Your task to perform on an android device: Open Reddit.com Image 0: 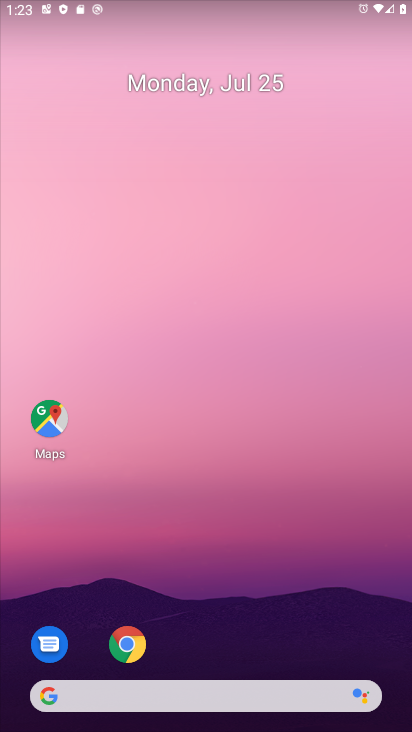
Step 0: drag from (369, 619) to (2, 228)
Your task to perform on an android device: Open Reddit.com Image 1: 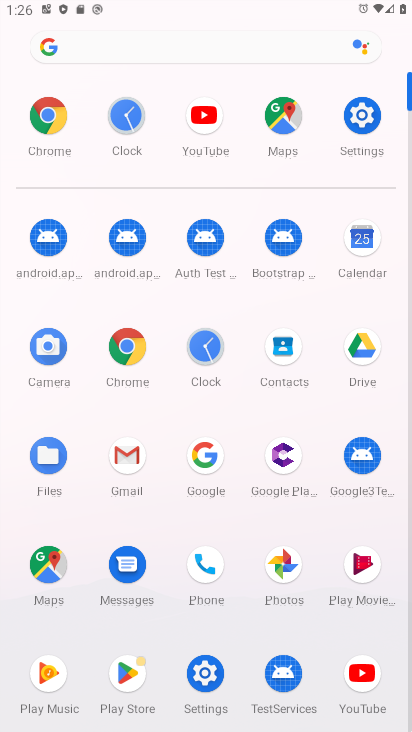
Step 1: click (215, 465)
Your task to perform on an android device: Open Reddit.com Image 2: 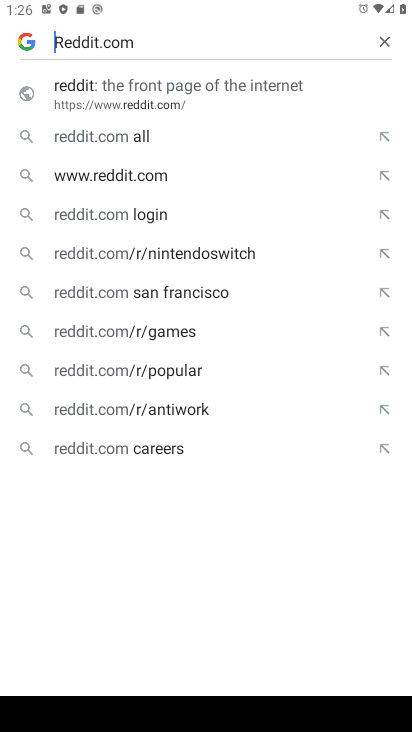
Step 2: click (112, 106)
Your task to perform on an android device: Open Reddit.com Image 3: 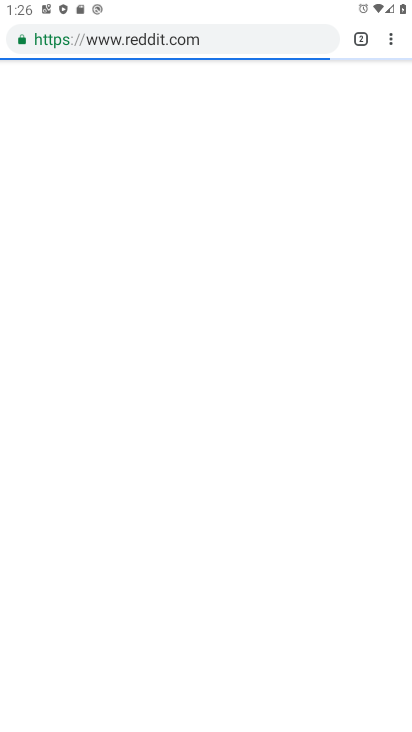
Step 3: click (141, 91)
Your task to perform on an android device: Open Reddit.com Image 4: 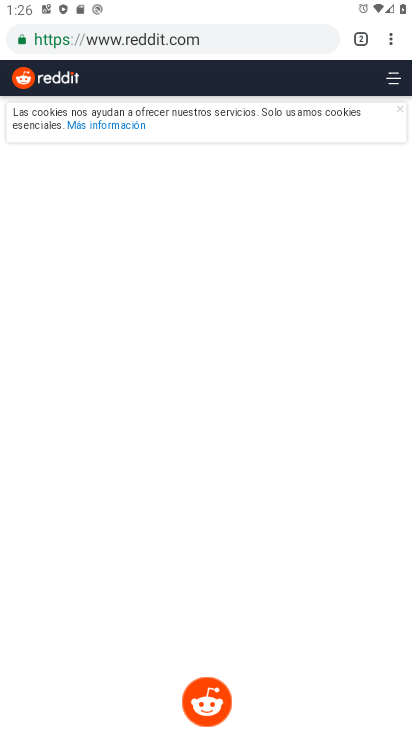
Step 4: task complete